Your task to perform on an android device: refresh tabs in the chrome app Image 0: 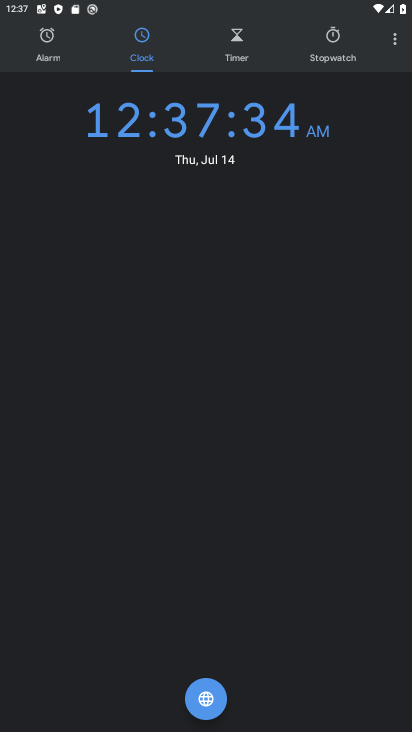
Step 0: press home button
Your task to perform on an android device: refresh tabs in the chrome app Image 1: 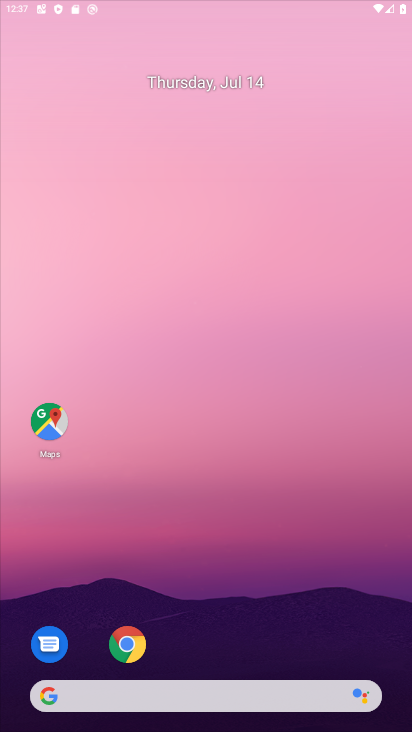
Step 1: drag from (334, 463) to (403, 633)
Your task to perform on an android device: refresh tabs in the chrome app Image 2: 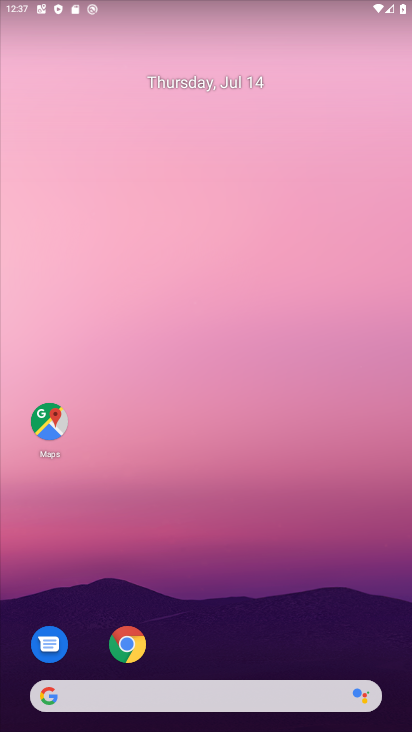
Step 2: drag from (256, 661) to (266, 4)
Your task to perform on an android device: refresh tabs in the chrome app Image 3: 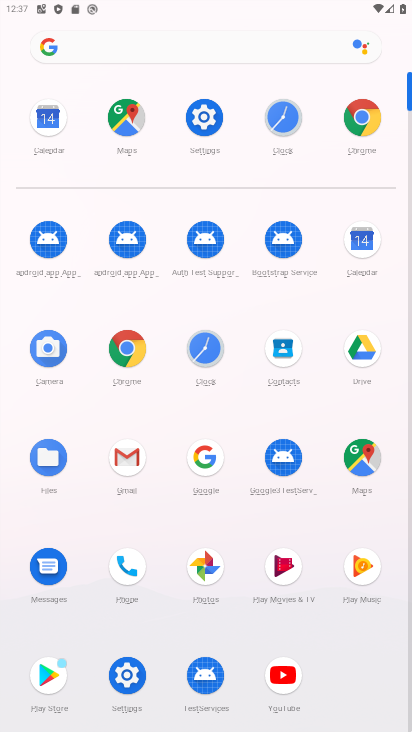
Step 3: click (126, 338)
Your task to perform on an android device: refresh tabs in the chrome app Image 4: 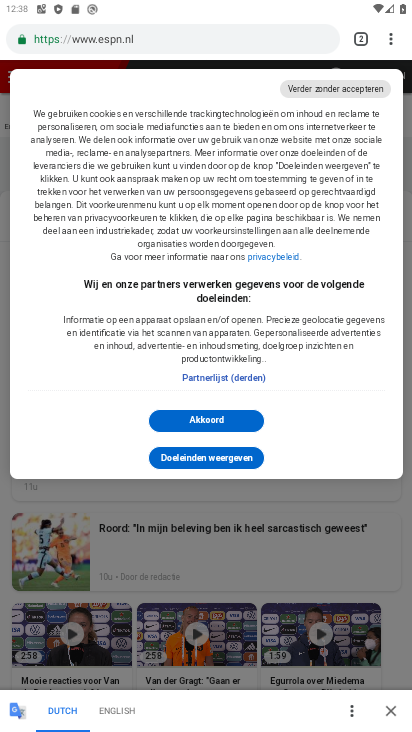
Step 4: click (393, 35)
Your task to perform on an android device: refresh tabs in the chrome app Image 5: 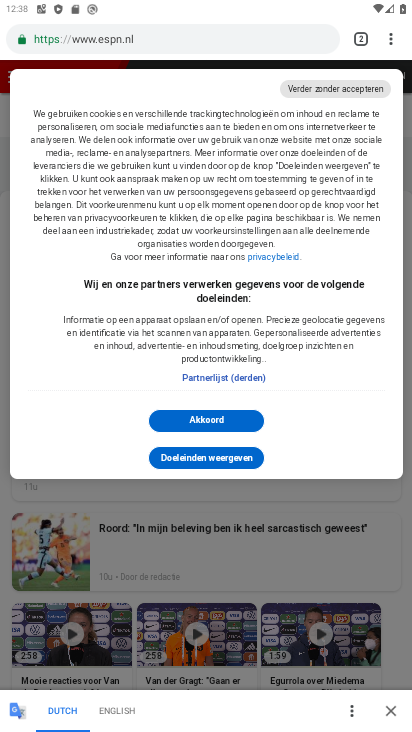
Step 5: task complete